Your task to perform on an android device: turn off priority inbox in the gmail app Image 0: 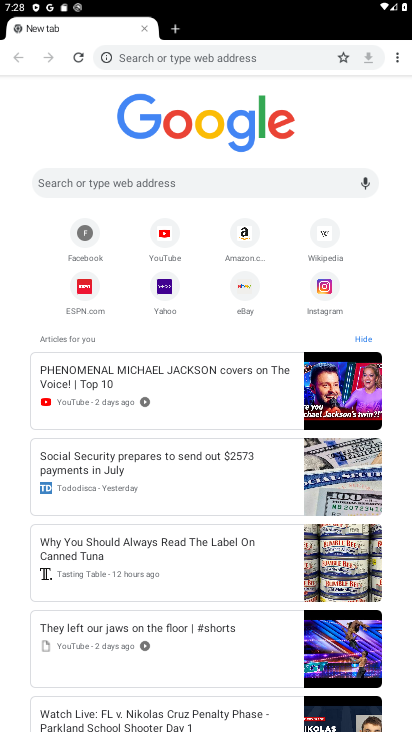
Step 0: press home button
Your task to perform on an android device: turn off priority inbox in the gmail app Image 1: 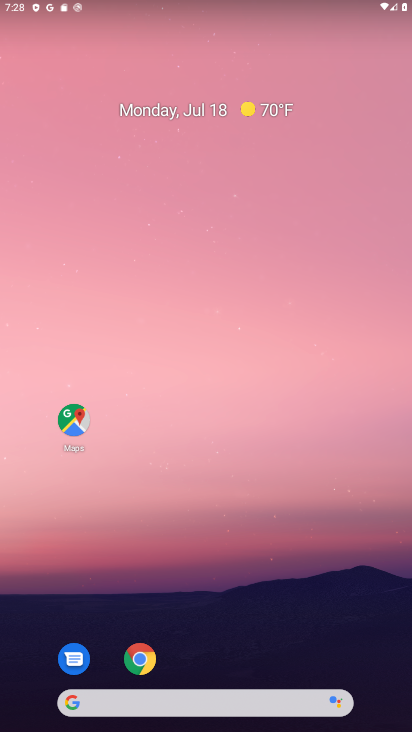
Step 1: drag from (222, 698) to (248, 141)
Your task to perform on an android device: turn off priority inbox in the gmail app Image 2: 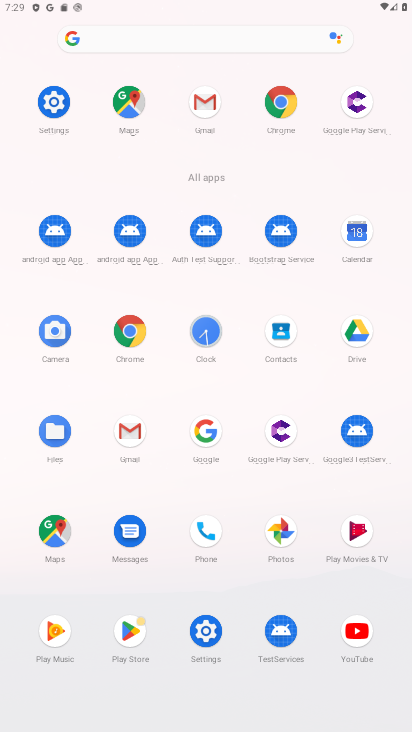
Step 2: click (204, 99)
Your task to perform on an android device: turn off priority inbox in the gmail app Image 3: 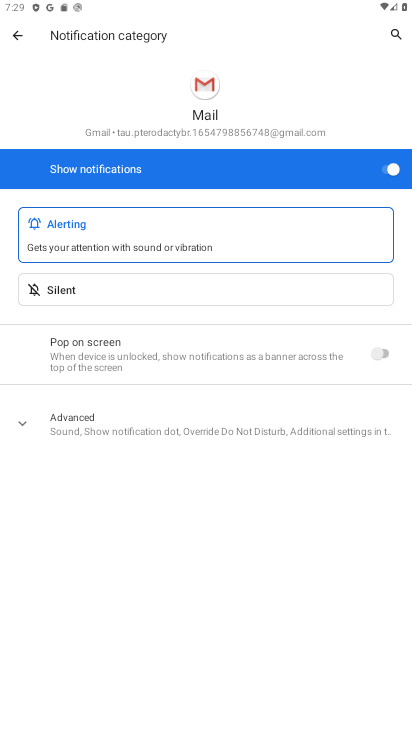
Step 3: press back button
Your task to perform on an android device: turn off priority inbox in the gmail app Image 4: 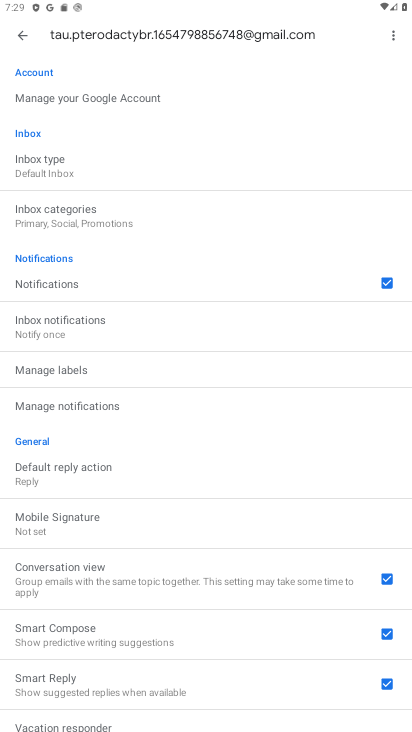
Step 4: click (53, 173)
Your task to perform on an android device: turn off priority inbox in the gmail app Image 5: 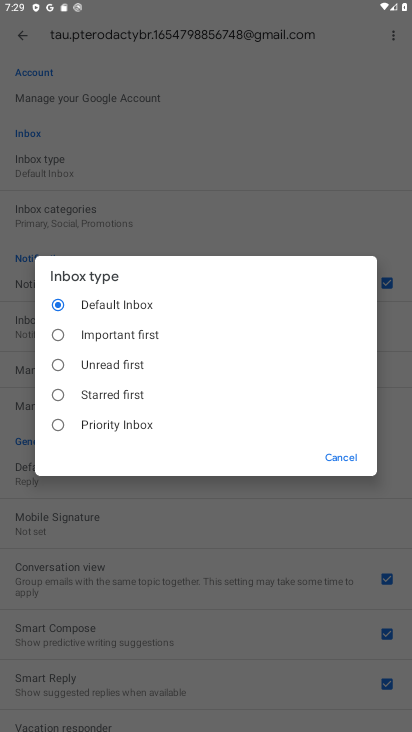
Step 5: click (56, 301)
Your task to perform on an android device: turn off priority inbox in the gmail app Image 6: 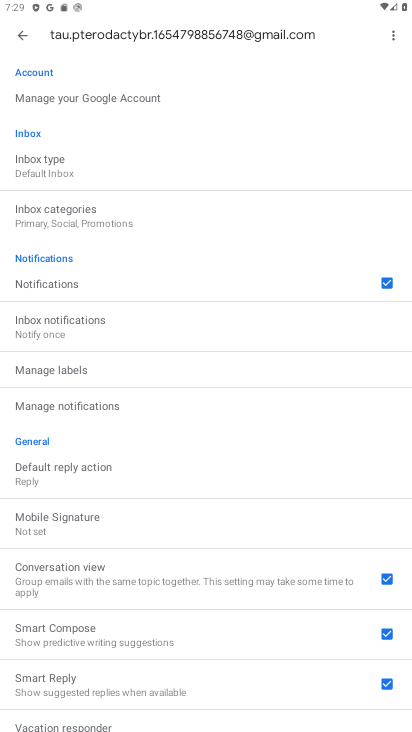
Step 6: task complete